Your task to perform on an android device: Open the map Image 0: 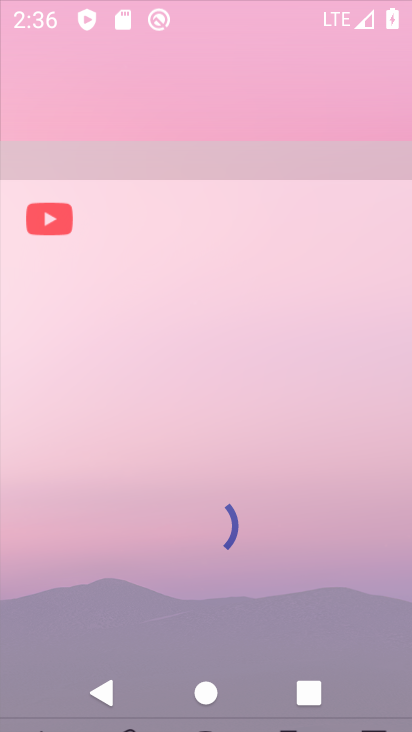
Step 0: drag from (346, 351) to (406, 15)
Your task to perform on an android device: Open the map Image 1: 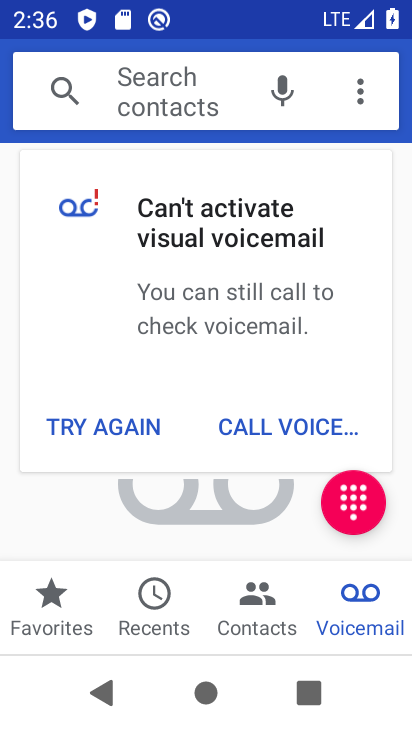
Step 1: press home button
Your task to perform on an android device: Open the map Image 2: 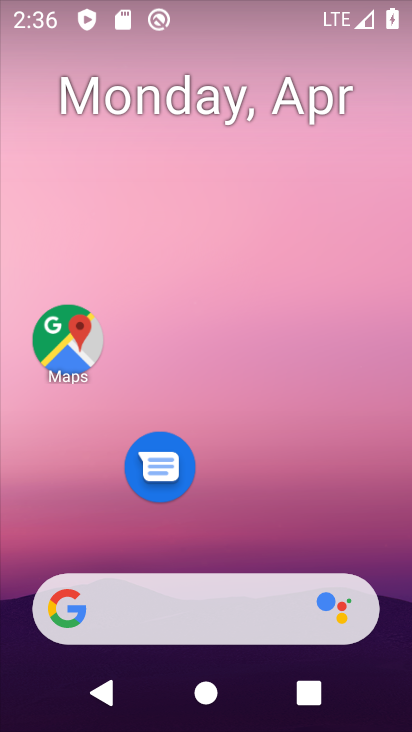
Step 2: drag from (290, 533) to (275, 87)
Your task to perform on an android device: Open the map Image 3: 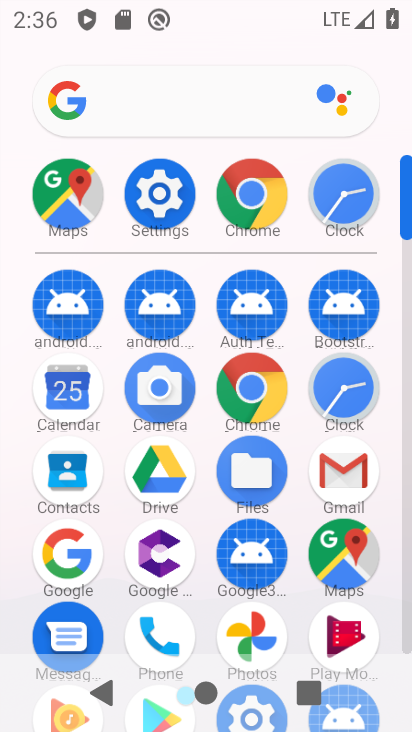
Step 3: click (64, 185)
Your task to perform on an android device: Open the map Image 4: 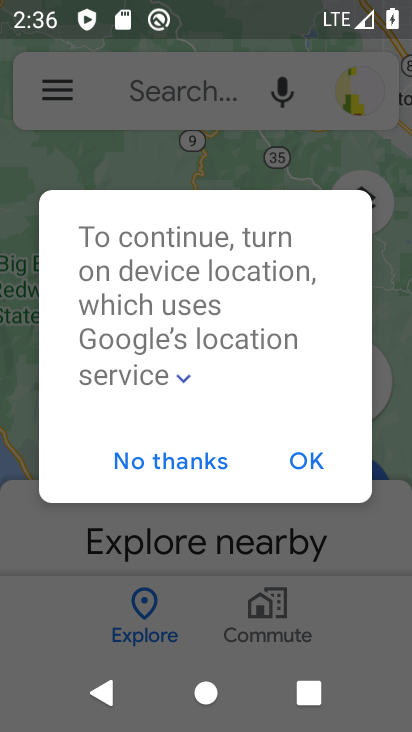
Step 4: click (182, 458)
Your task to perform on an android device: Open the map Image 5: 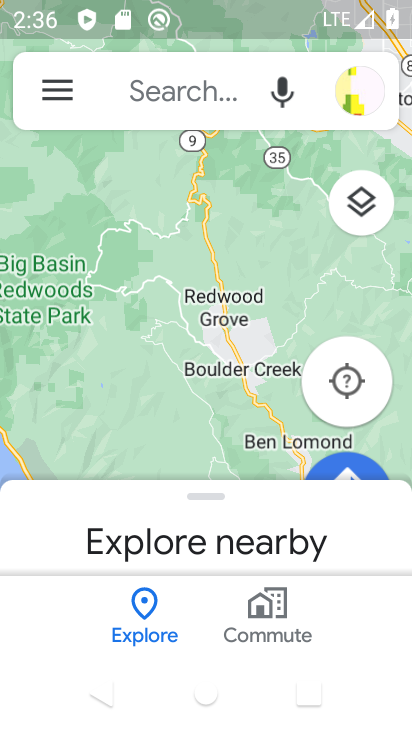
Step 5: task complete